Your task to perform on an android device: turn pop-ups on in chrome Image 0: 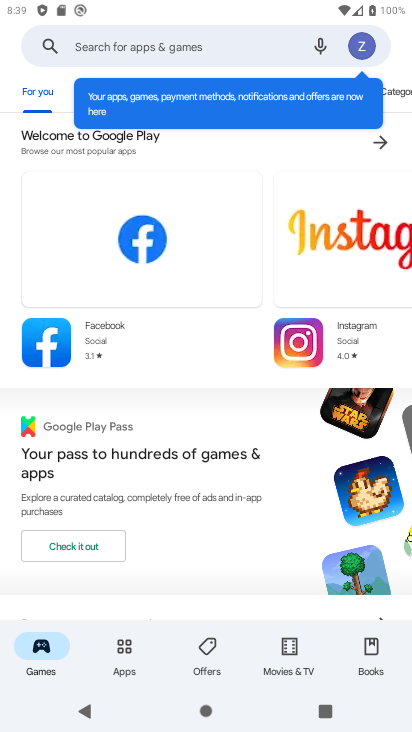
Step 0: press home button
Your task to perform on an android device: turn pop-ups on in chrome Image 1: 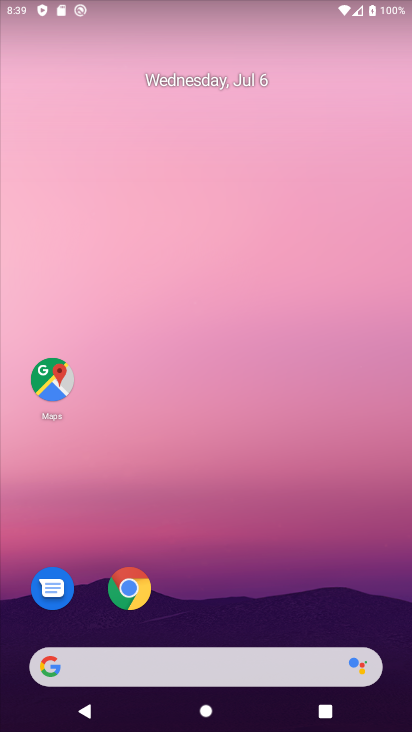
Step 1: click (120, 589)
Your task to perform on an android device: turn pop-ups on in chrome Image 2: 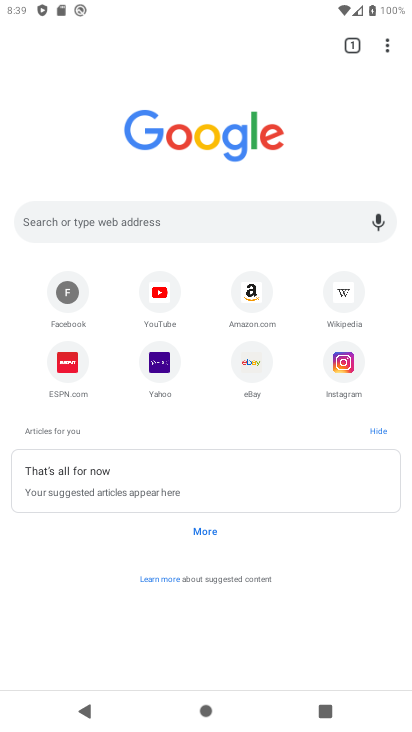
Step 2: click (387, 46)
Your task to perform on an android device: turn pop-ups on in chrome Image 3: 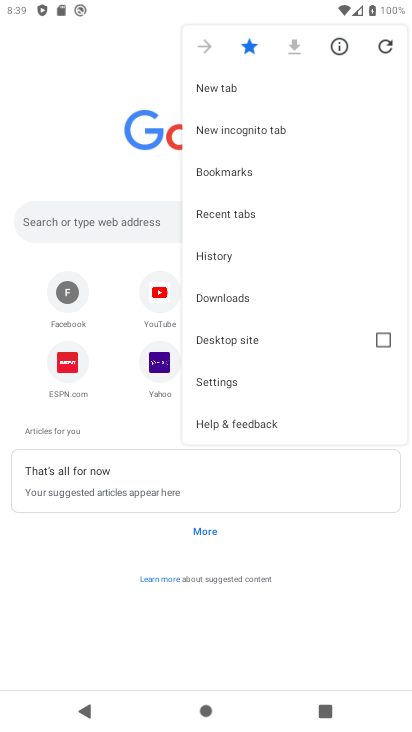
Step 3: click (226, 373)
Your task to perform on an android device: turn pop-ups on in chrome Image 4: 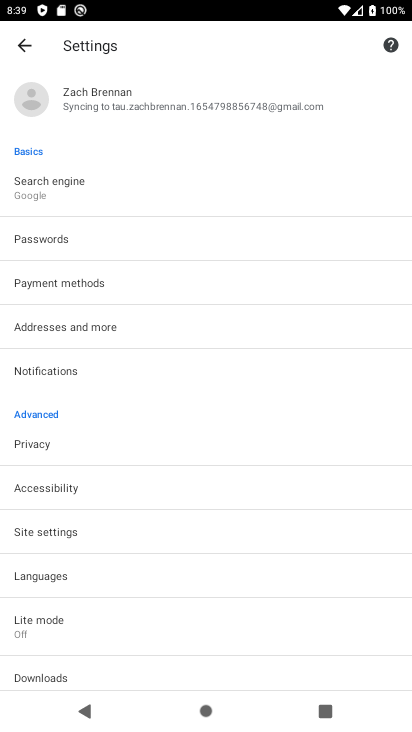
Step 4: click (42, 530)
Your task to perform on an android device: turn pop-ups on in chrome Image 5: 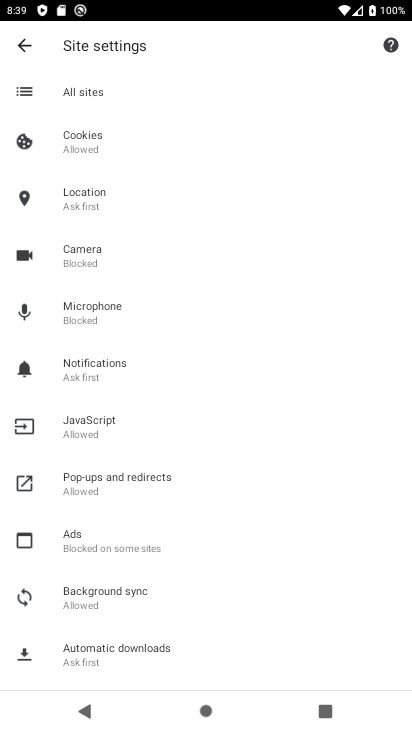
Step 5: click (96, 478)
Your task to perform on an android device: turn pop-ups on in chrome Image 6: 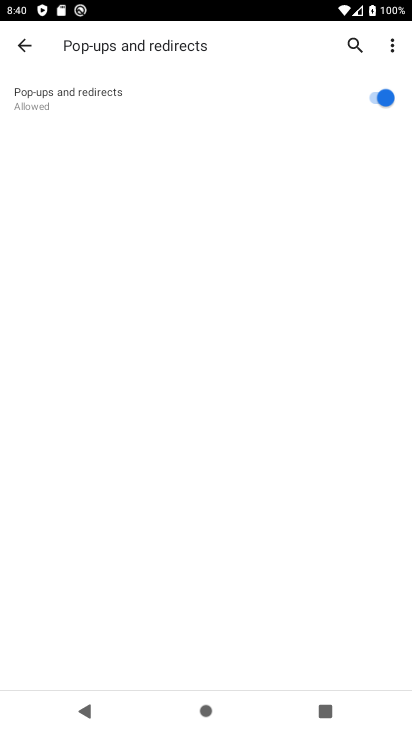
Step 6: task complete